Your task to perform on an android device: turn notification dots off Image 0: 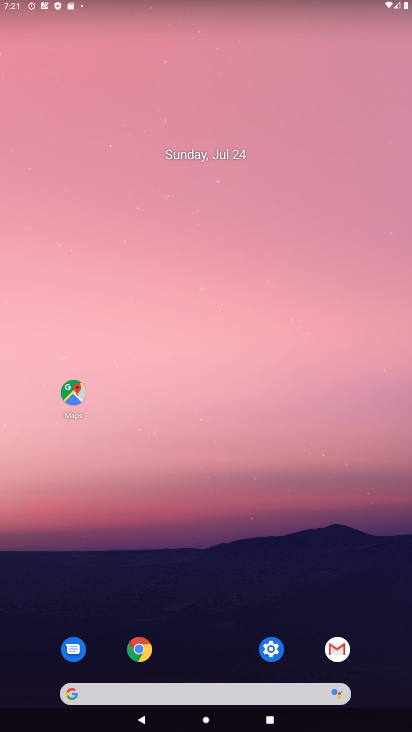
Step 0: click (268, 657)
Your task to perform on an android device: turn notification dots off Image 1: 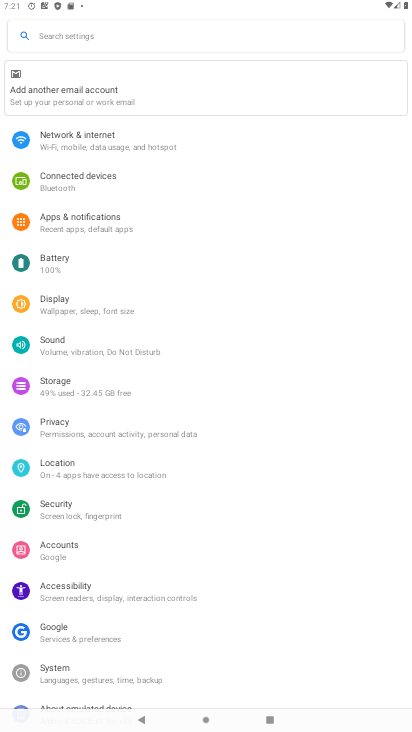
Step 1: click (96, 46)
Your task to perform on an android device: turn notification dots off Image 2: 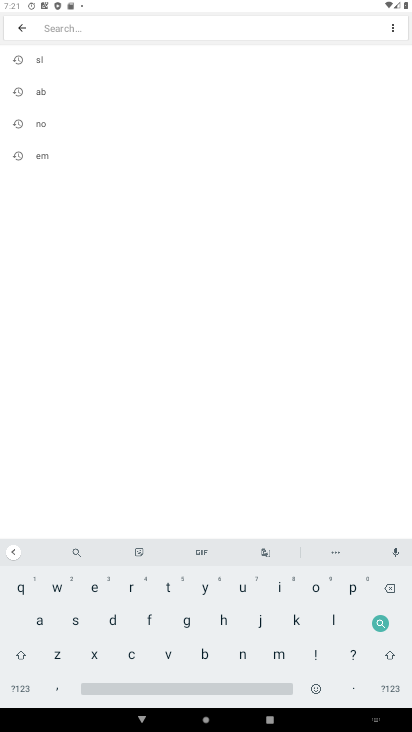
Step 2: click (58, 119)
Your task to perform on an android device: turn notification dots off Image 3: 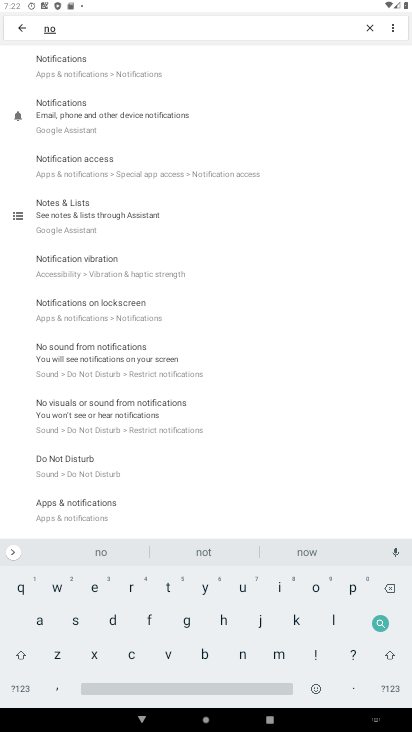
Step 3: click (95, 79)
Your task to perform on an android device: turn notification dots off Image 4: 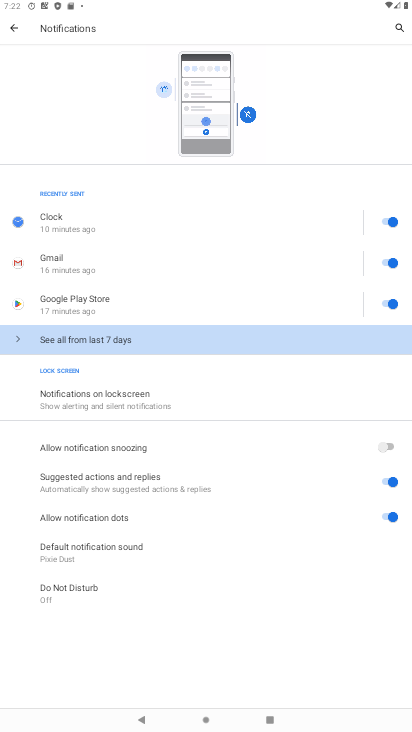
Step 4: click (376, 514)
Your task to perform on an android device: turn notification dots off Image 5: 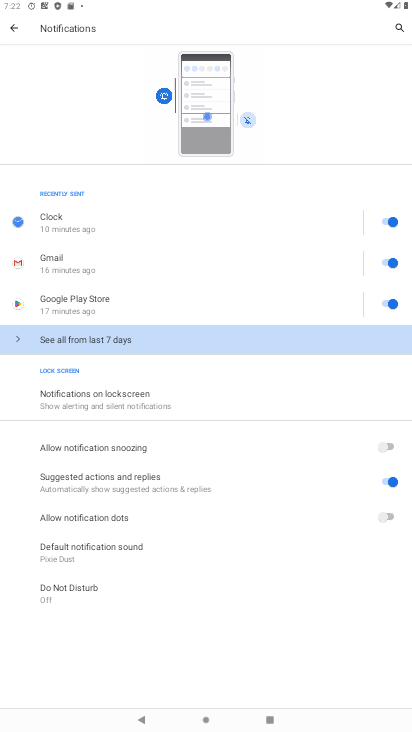
Step 5: task complete